Your task to perform on an android device: install app "McDonald's" Image 0: 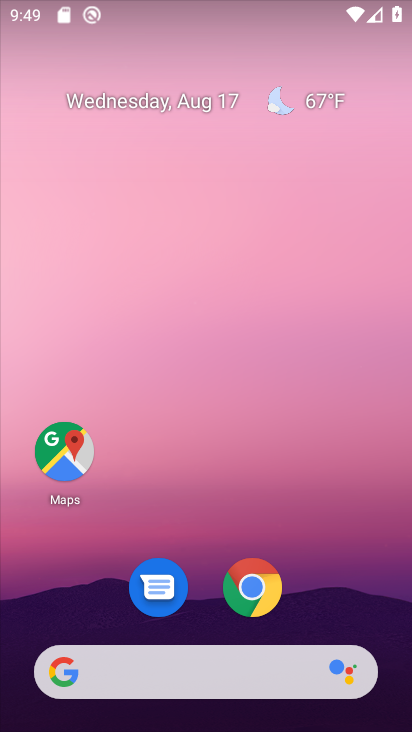
Step 0: drag from (215, 589) to (235, 488)
Your task to perform on an android device: install app "McDonald's" Image 1: 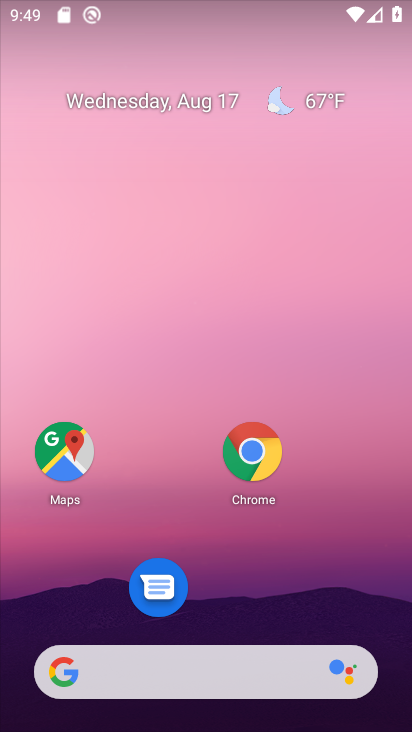
Step 1: drag from (207, 613) to (160, 2)
Your task to perform on an android device: install app "McDonald's" Image 2: 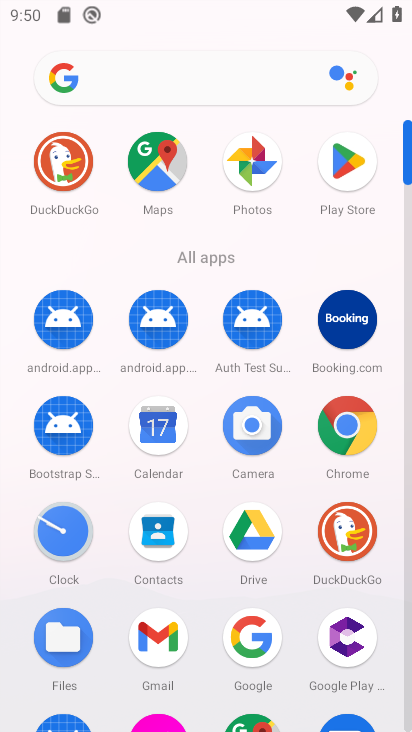
Step 2: click (340, 187)
Your task to perform on an android device: install app "McDonald's" Image 3: 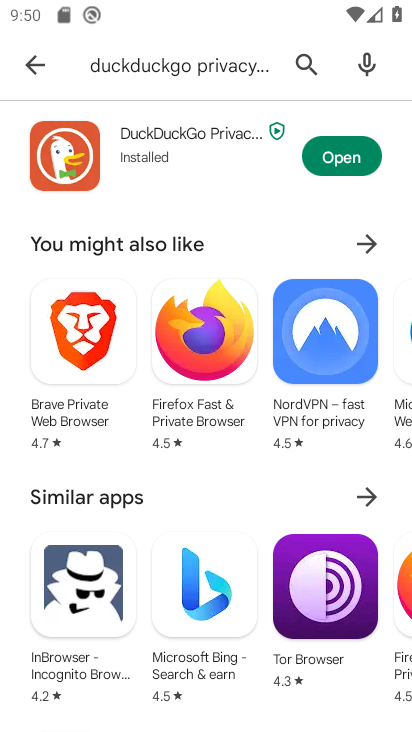
Step 3: click (46, 67)
Your task to perform on an android device: install app "McDonald's" Image 4: 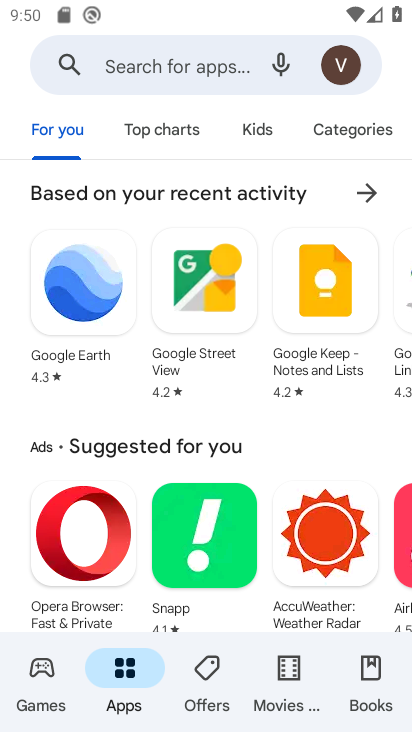
Step 4: click (118, 70)
Your task to perform on an android device: install app "McDonald's" Image 5: 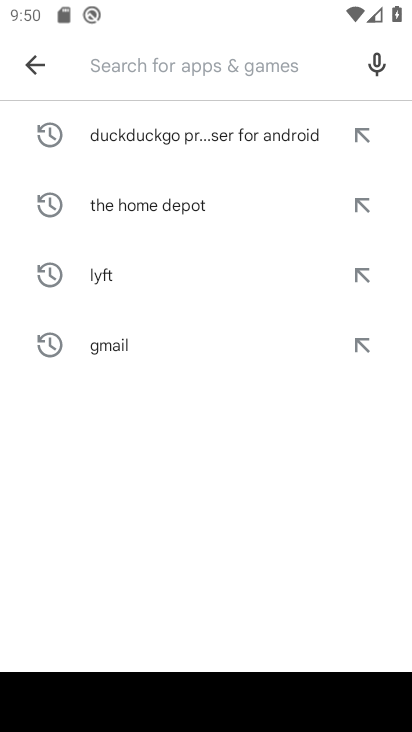
Step 5: type "McDonald's"
Your task to perform on an android device: install app "McDonald's" Image 6: 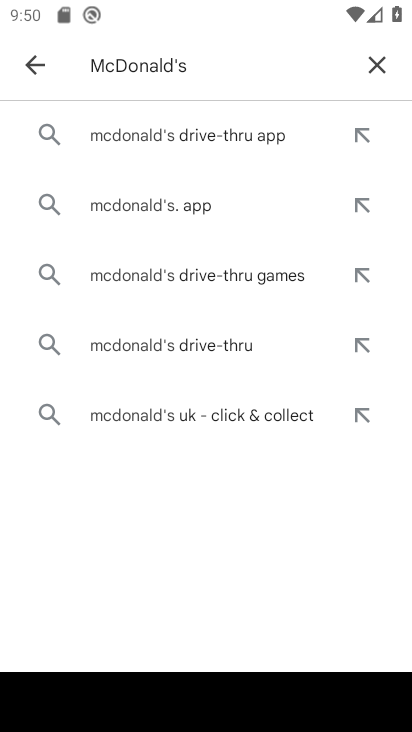
Step 6: click (165, 208)
Your task to perform on an android device: install app "McDonald's" Image 7: 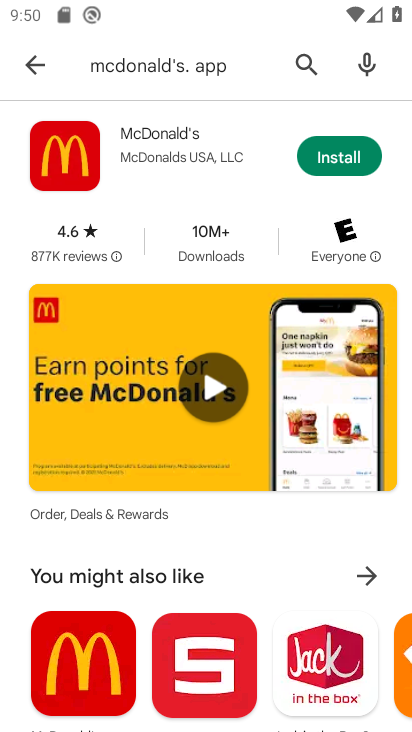
Step 7: click (316, 161)
Your task to perform on an android device: install app "McDonald's" Image 8: 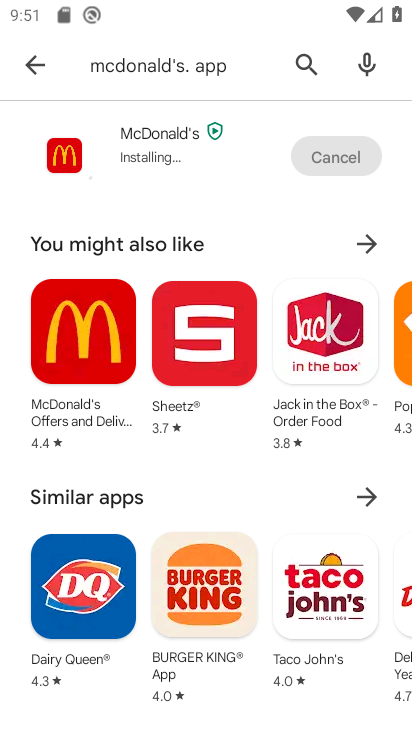
Step 8: click (316, 161)
Your task to perform on an android device: install app "McDonald's" Image 9: 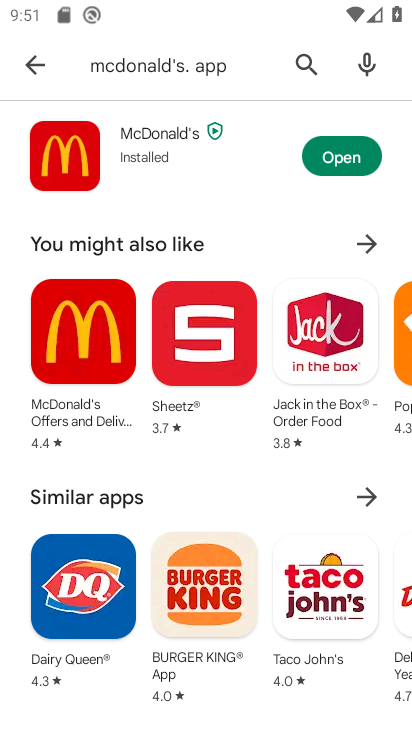
Step 9: click (338, 161)
Your task to perform on an android device: install app "McDonald's" Image 10: 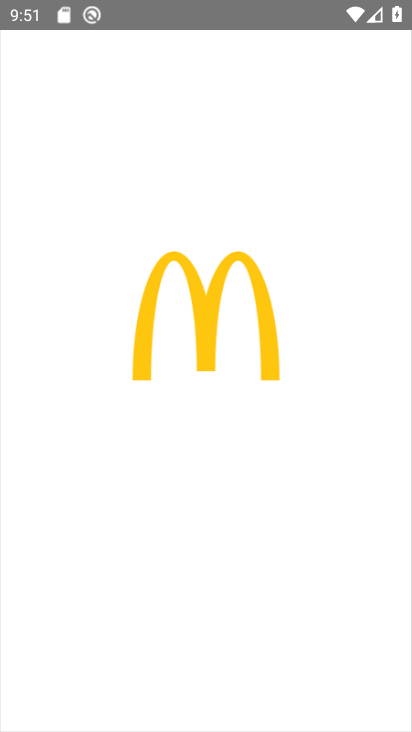
Step 10: task complete